Your task to perform on an android device: Add "razer blackwidow" to the cart on costco.com Image 0: 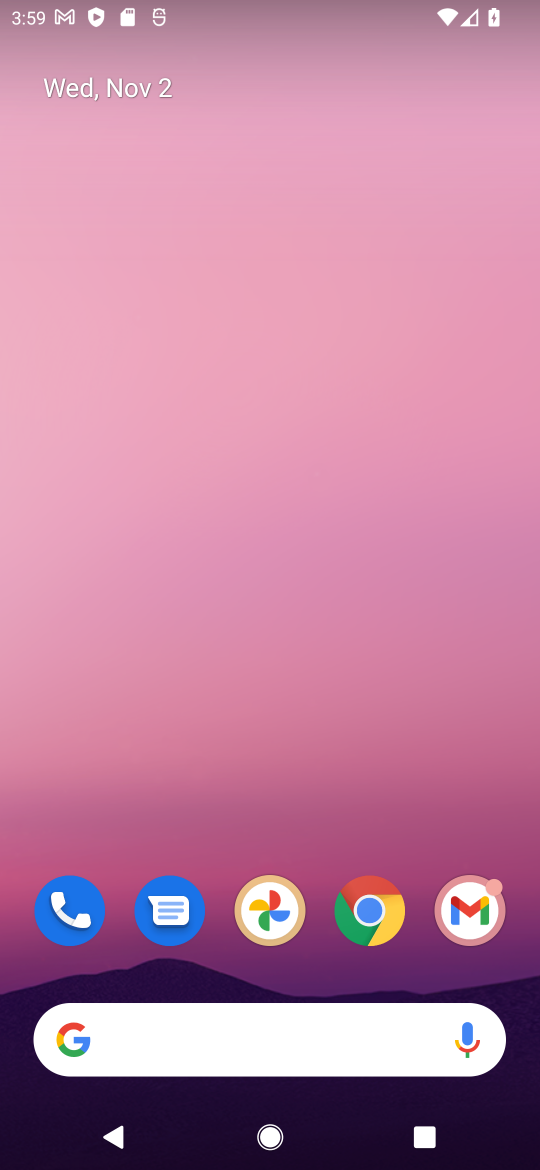
Step 0: click (356, 898)
Your task to perform on an android device: Add "razer blackwidow" to the cart on costco.com Image 1: 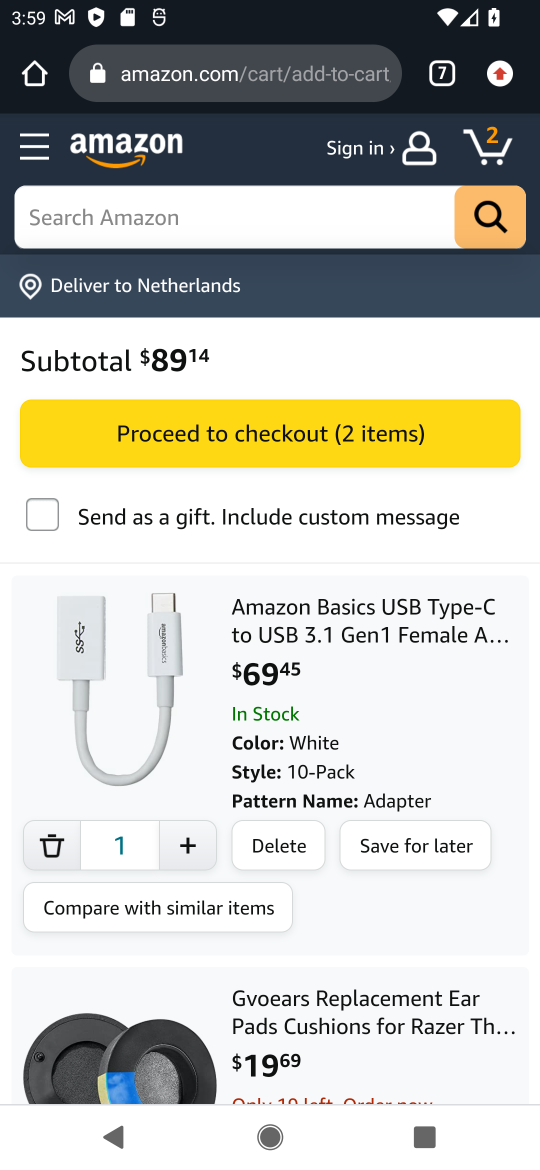
Step 1: click (443, 79)
Your task to perform on an android device: Add "razer blackwidow" to the cart on costco.com Image 2: 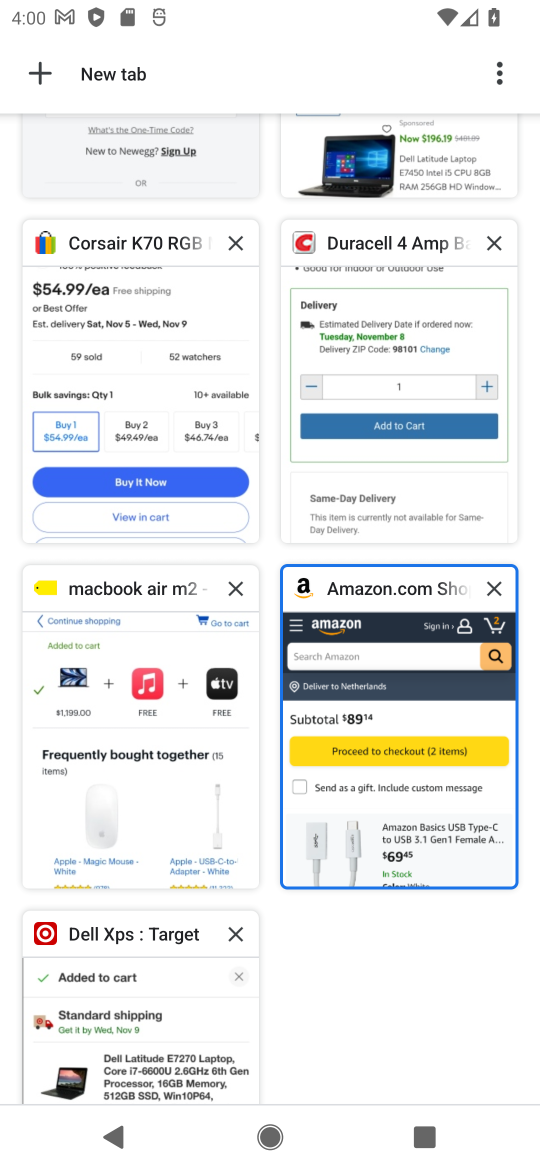
Step 2: click (390, 305)
Your task to perform on an android device: Add "razer blackwidow" to the cart on costco.com Image 3: 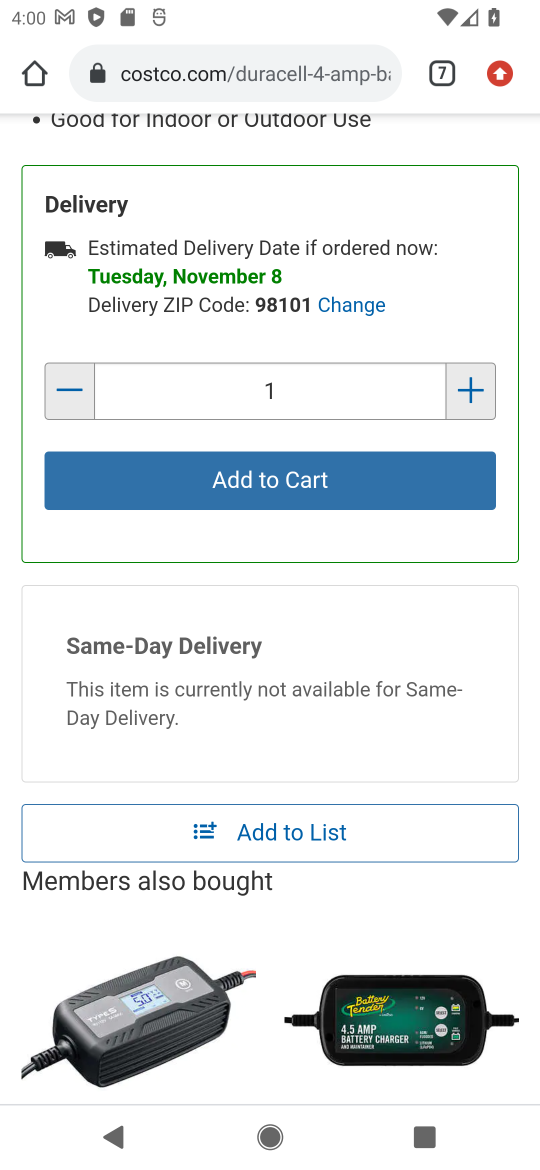
Step 3: drag from (362, 242) to (316, 664)
Your task to perform on an android device: Add "razer blackwidow" to the cart on costco.com Image 4: 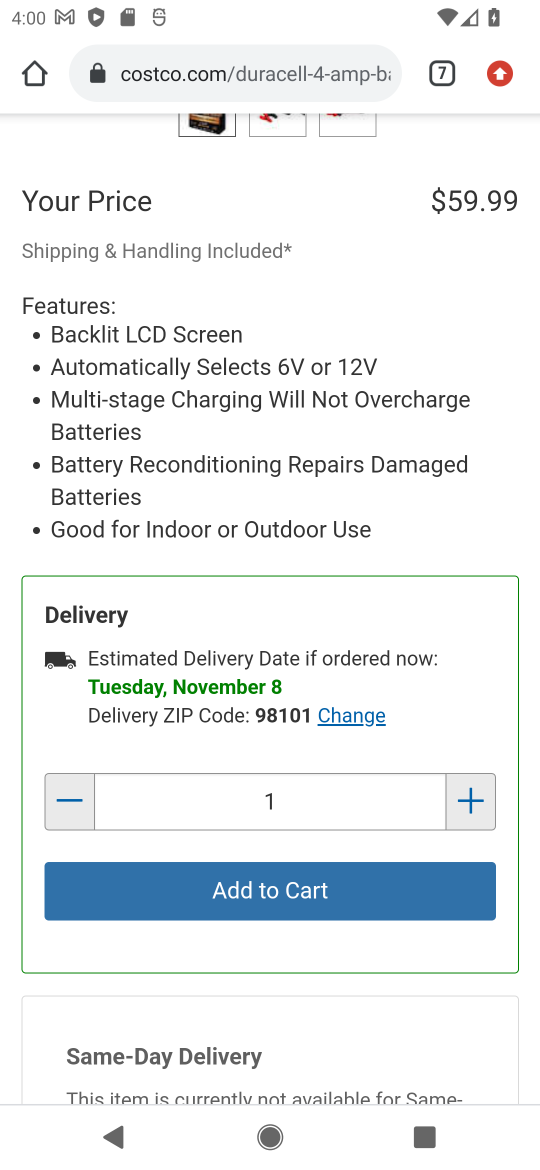
Step 4: drag from (307, 197) to (230, 651)
Your task to perform on an android device: Add "razer blackwidow" to the cart on costco.com Image 5: 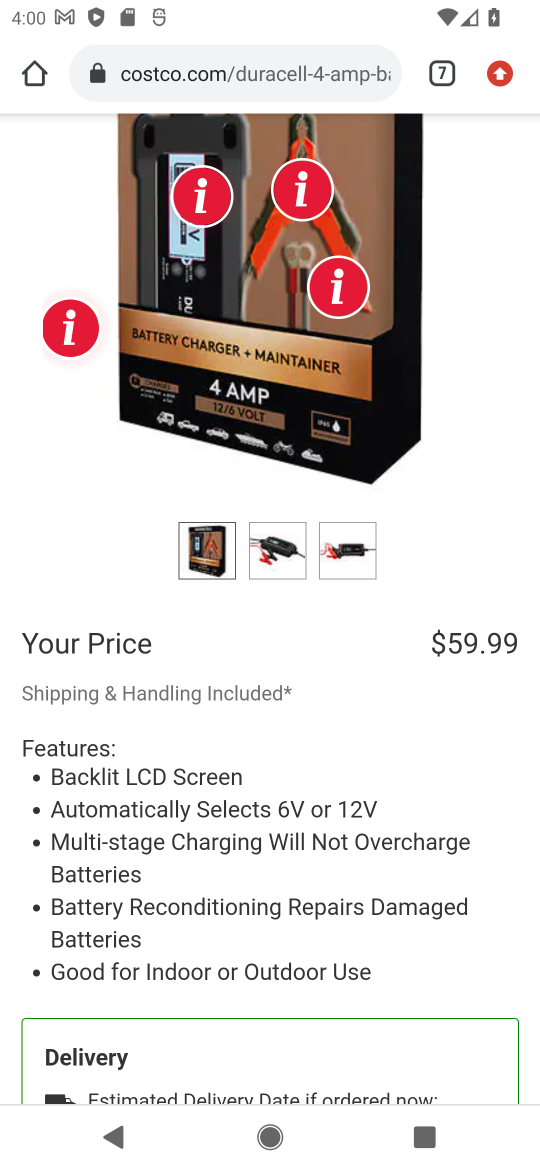
Step 5: drag from (416, 351) to (402, 869)
Your task to perform on an android device: Add "razer blackwidow" to the cart on costco.com Image 6: 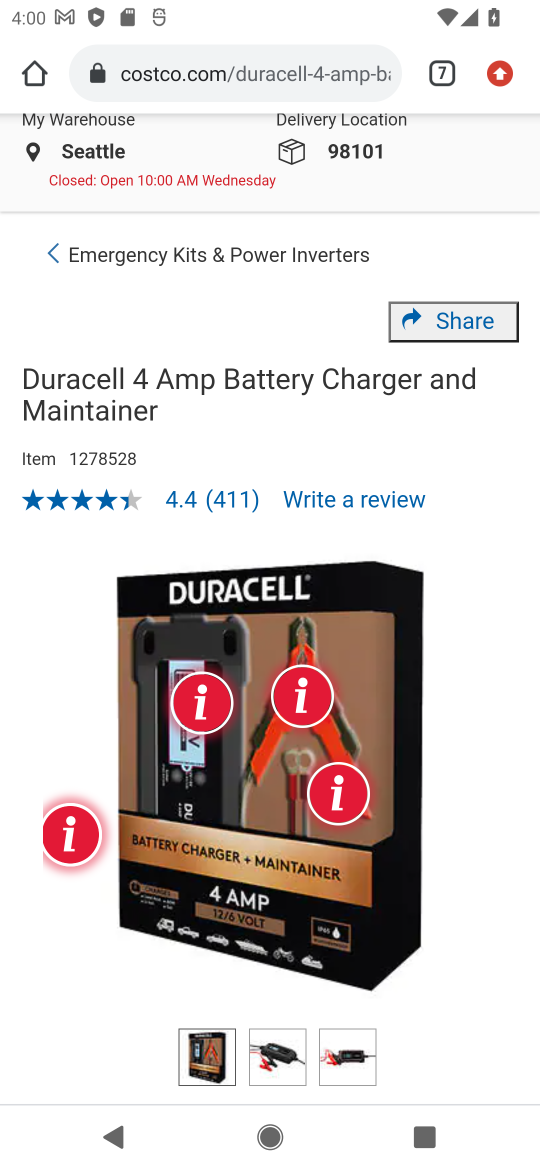
Step 6: drag from (303, 174) to (227, 1151)
Your task to perform on an android device: Add "razer blackwidow" to the cart on costco.com Image 7: 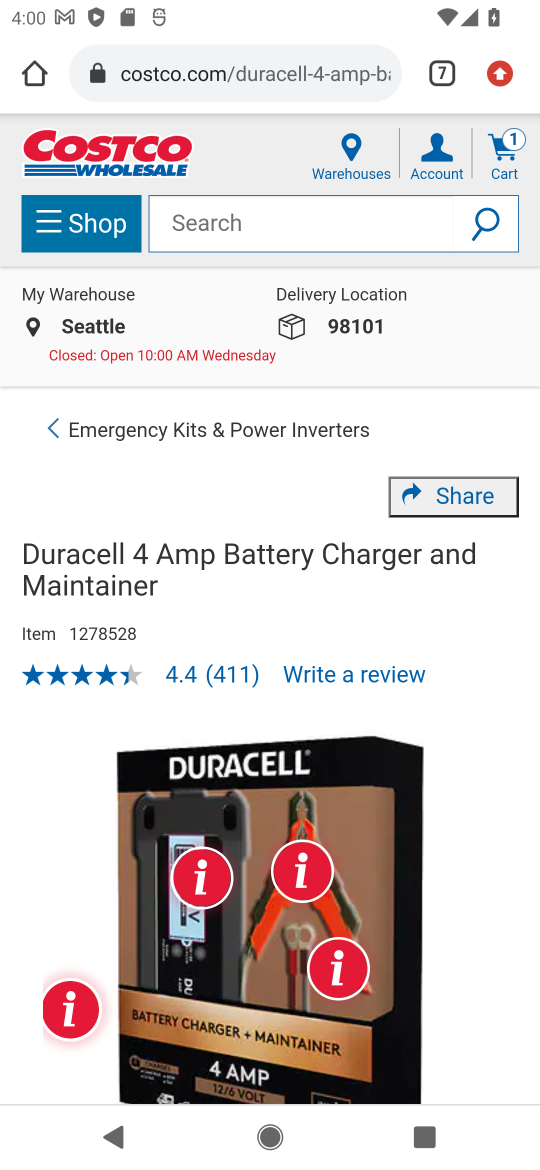
Step 7: click (212, 215)
Your task to perform on an android device: Add "razer blackwidow" to the cart on costco.com Image 8: 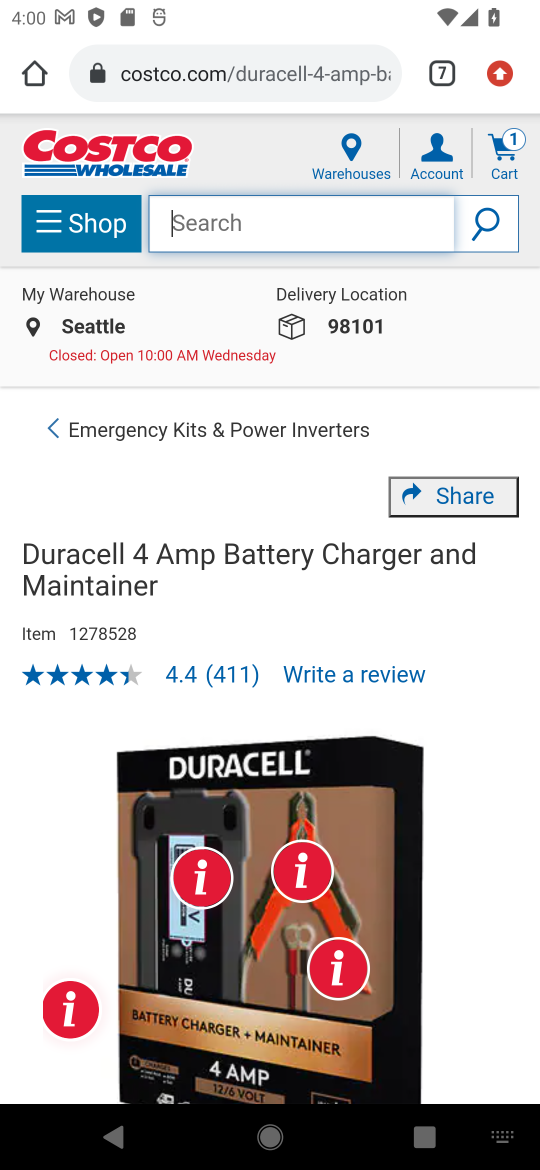
Step 8: type "razer blackwidow"
Your task to perform on an android device: Add "razer blackwidow" to the cart on costco.com Image 9: 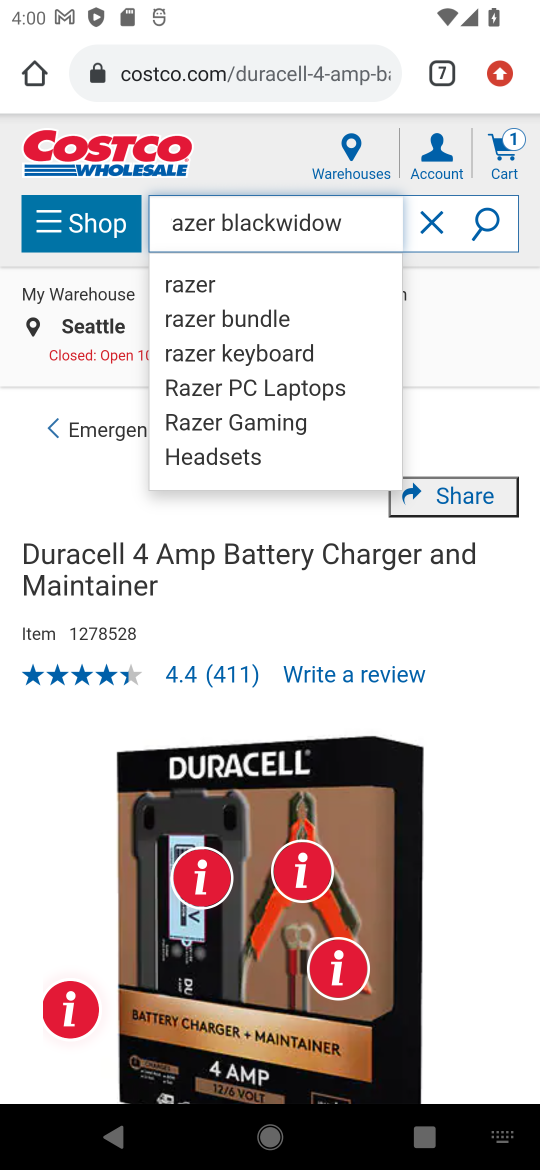
Step 9: click (236, 387)
Your task to perform on an android device: Add "razer blackwidow" to the cart on costco.com Image 10: 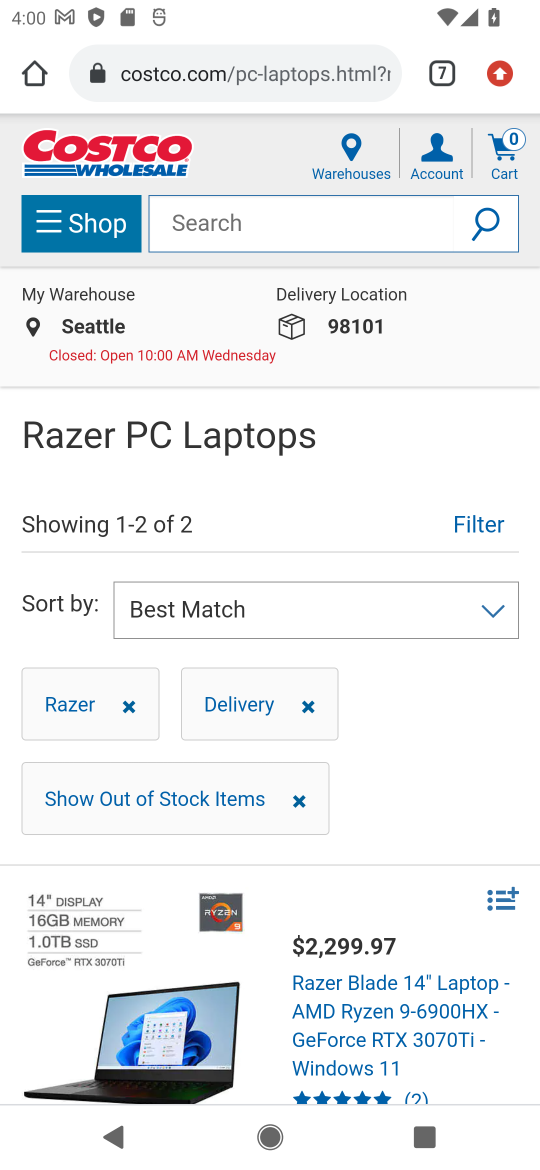
Step 10: click (411, 998)
Your task to perform on an android device: Add "razer blackwidow" to the cart on costco.com Image 11: 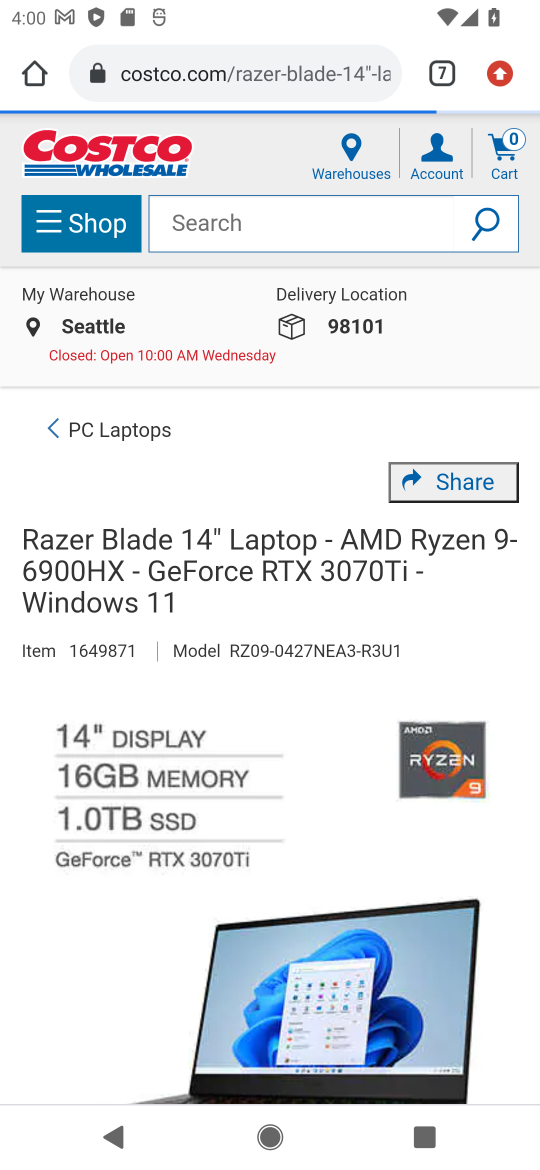
Step 11: drag from (348, 1037) to (212, 229)
Your task to perform on an android device: Add "razer blackwidow" to the cart on costco.com Image 12: 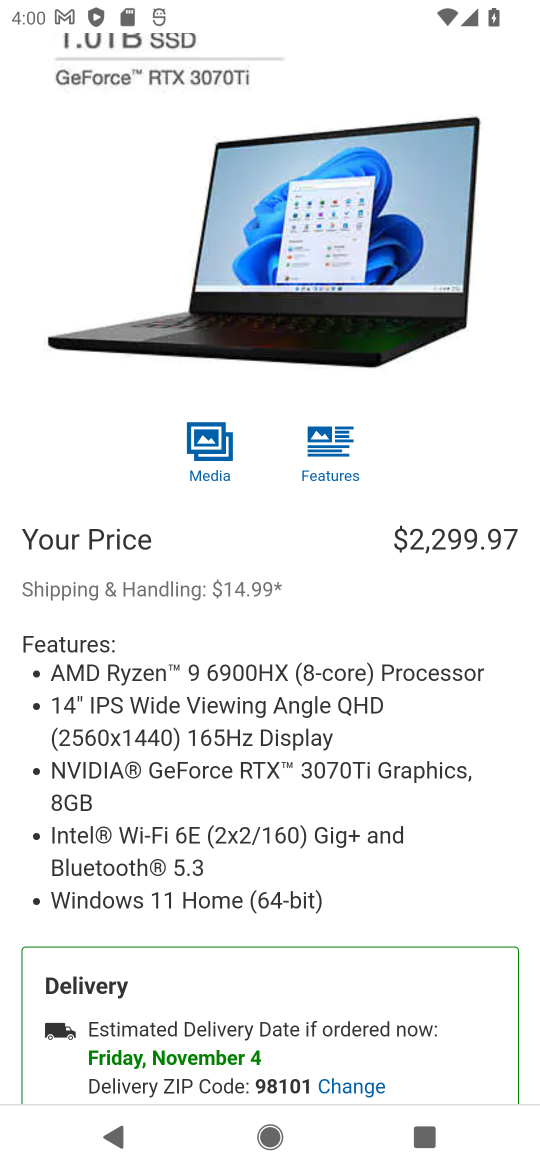
Step 12: drag from (403, 854) to (463, 92)
Your task to perform on an android device: Add "razer blackwidow" to the cart on costco.com Image 13: 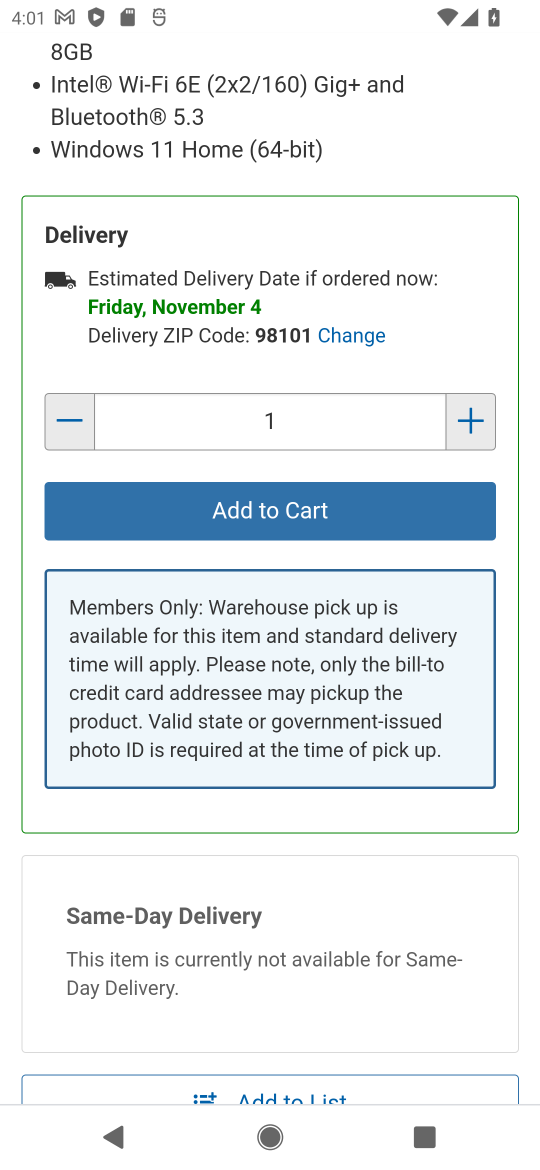
Step 13: click (344, 526)
Your task to perform on an android device: Add "razer blackwidow" to the cart on costco.com Image 14: 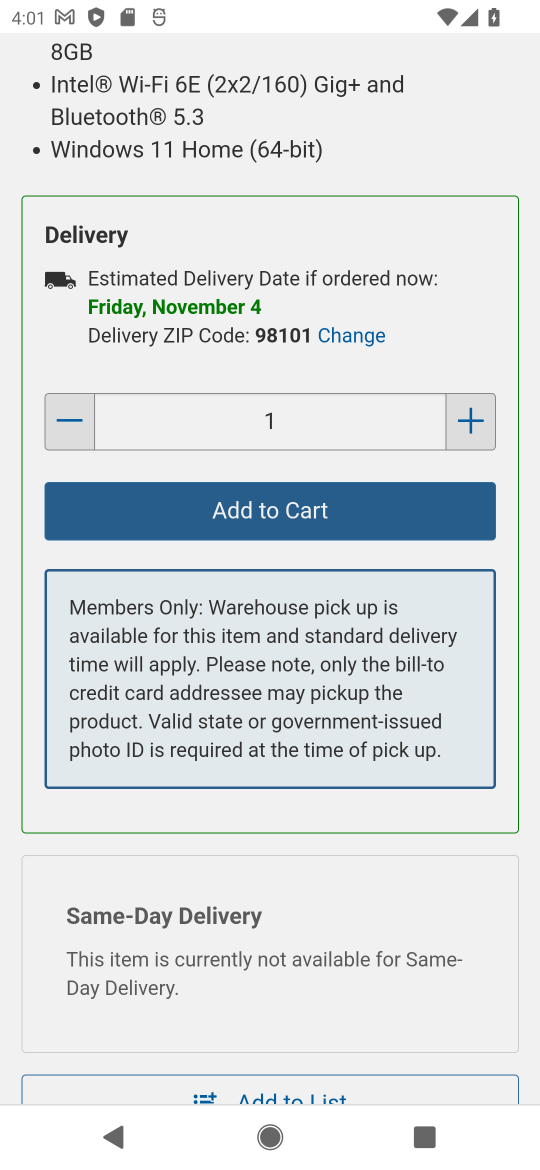
Step 14: click (284, 529)
Your task to perform on an android device: Add "razer blackwidow" to the cart on costco.com Image 15: 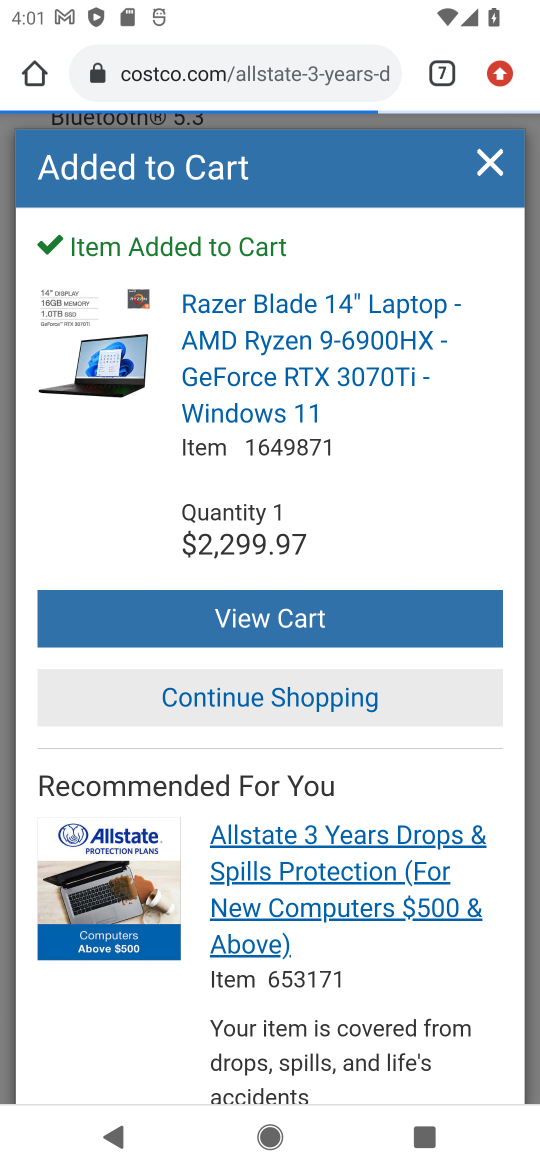
Step 15: task complete